Your task to perform on an android device: Open the phone app and click the voicemail tab. Image 0: 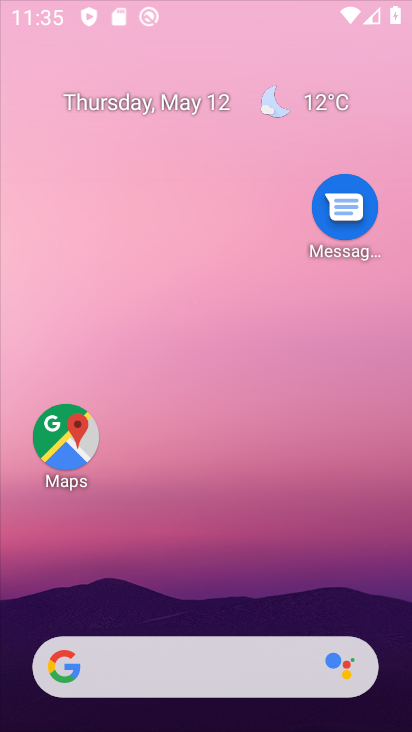
Step 0: press home button
Your task to perform on an android device: Open the phone app and click the voicemail tab. Image 1: 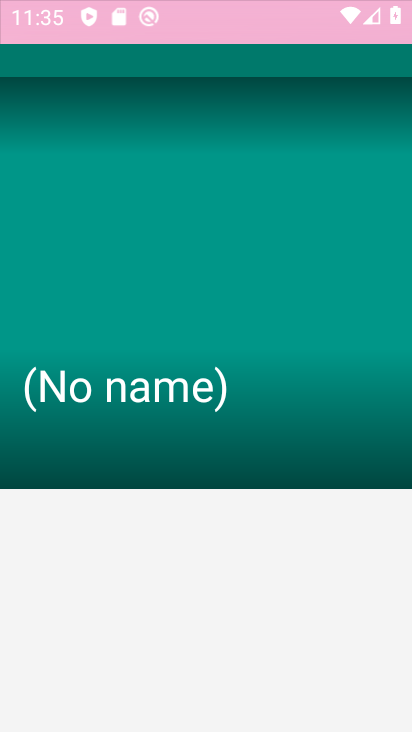
Step 1: drag from (287, 555) to (330, 71)
Your task to perform on an android device: Open the phone app and click the voicemail tab. Image 2: 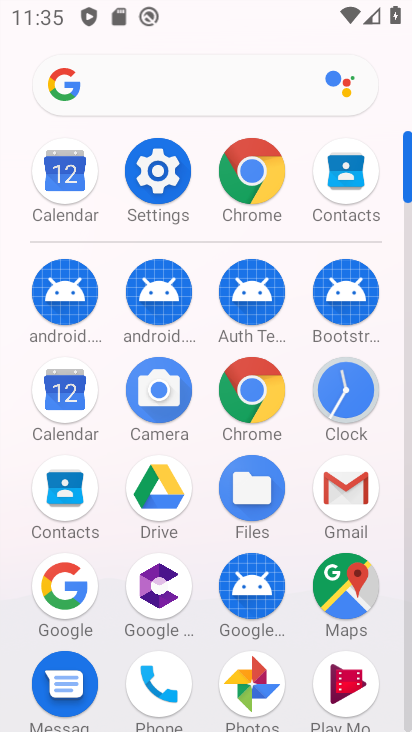
Step 2: click (164, 664)
Your task to perform on an android device: Open the phone app and click the voicemail tab. Image 3: 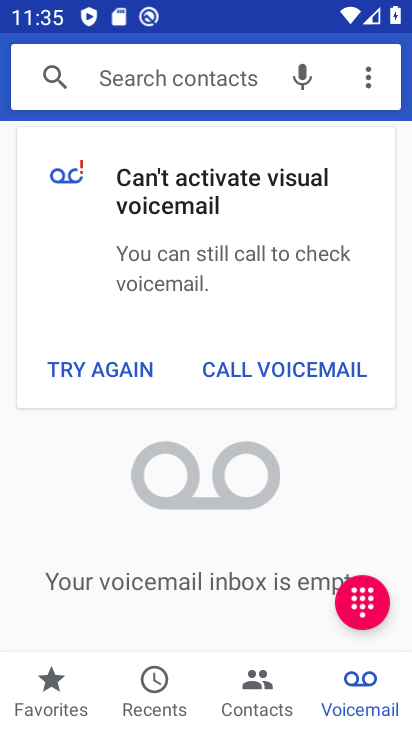
Step 3: task complete